Your task to perform on an android device: set the stopwatch Image 0: 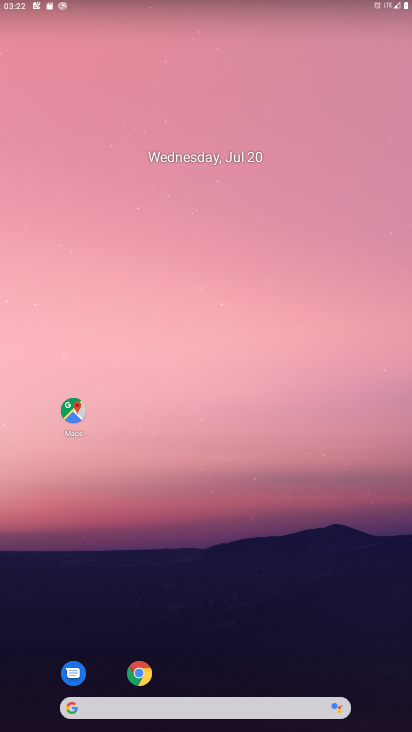
Step 0: drag from (166, 669) to (156, 12)
Your task to perform on an android device: set the stopwatch Image 1: 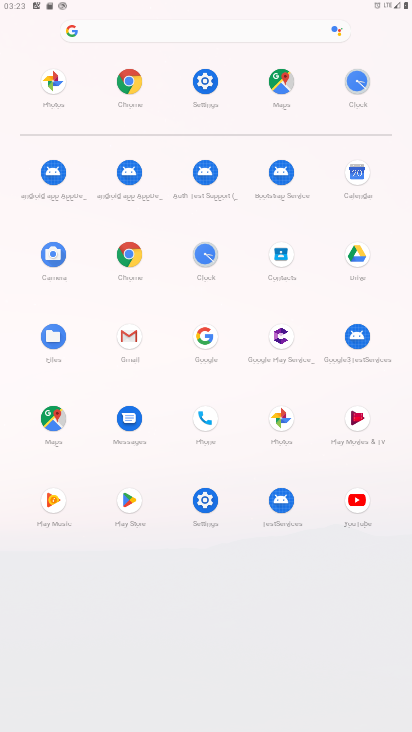
Step 1: click (210, 261)
Your task to perform on an android device: set the stopwatch Image 2: 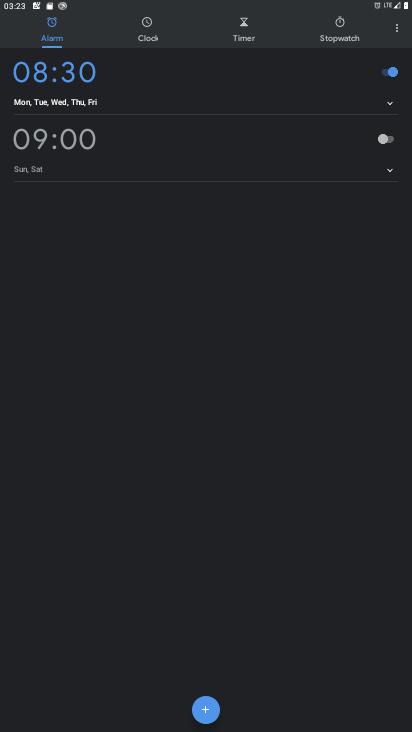
Step 2: click (333, 30)
Your task to perform on an android device: set the stopwatch Image 3: 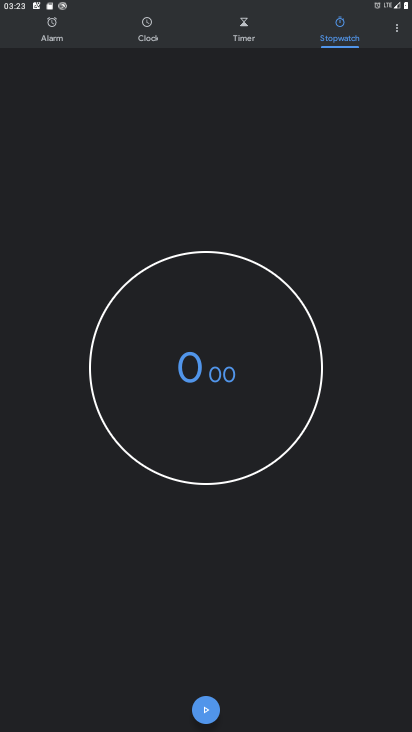
Step 3: click (199, 704)
Your task to perform on an android device: set the stopwatch Image 4: 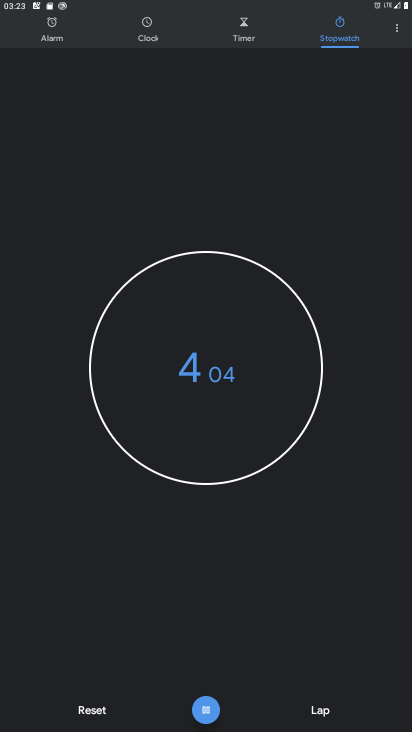
Step 4: task complete